Your task to perform on an android device: uninstall "Airtel Thanks" Image 0: 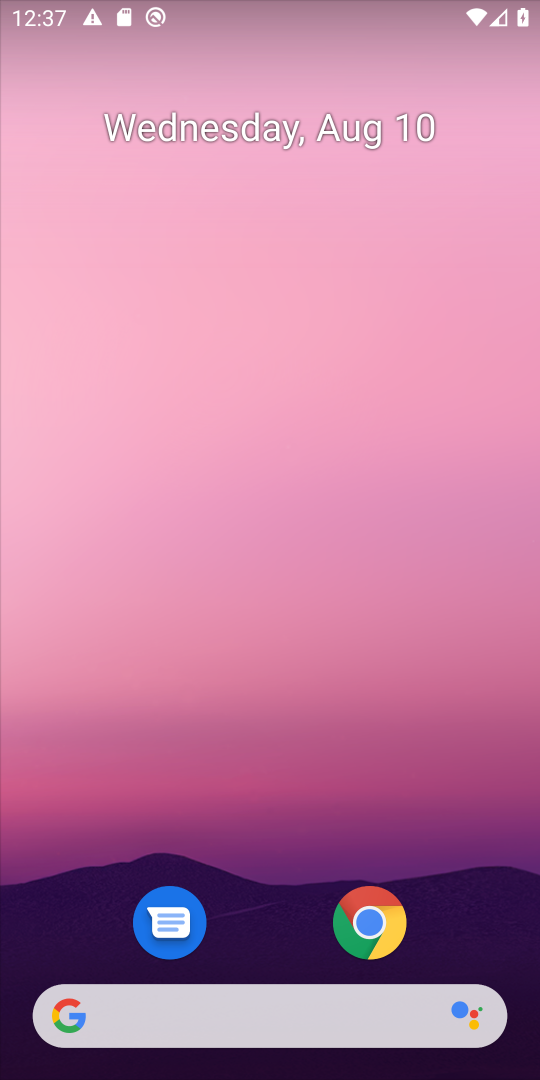
Step 0: click (268, 925)
Your task to perform on an android device: uninstall "Airtel Thanks" Image 1: 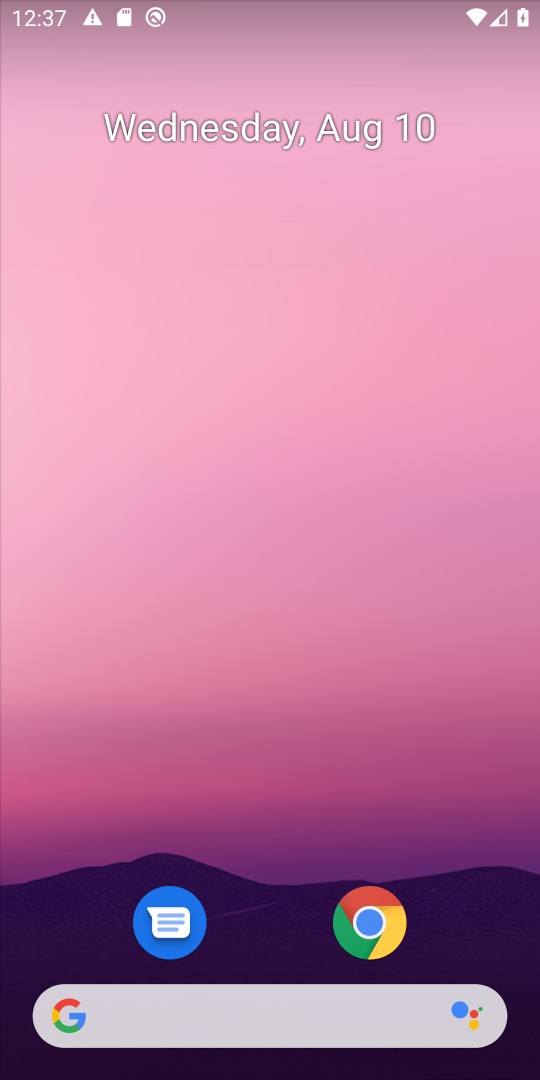
Step 1: drag from (262, 868) to (299, 76)
Your task to perform on an android device: uninstall "Airtel Thanks" Image 2: 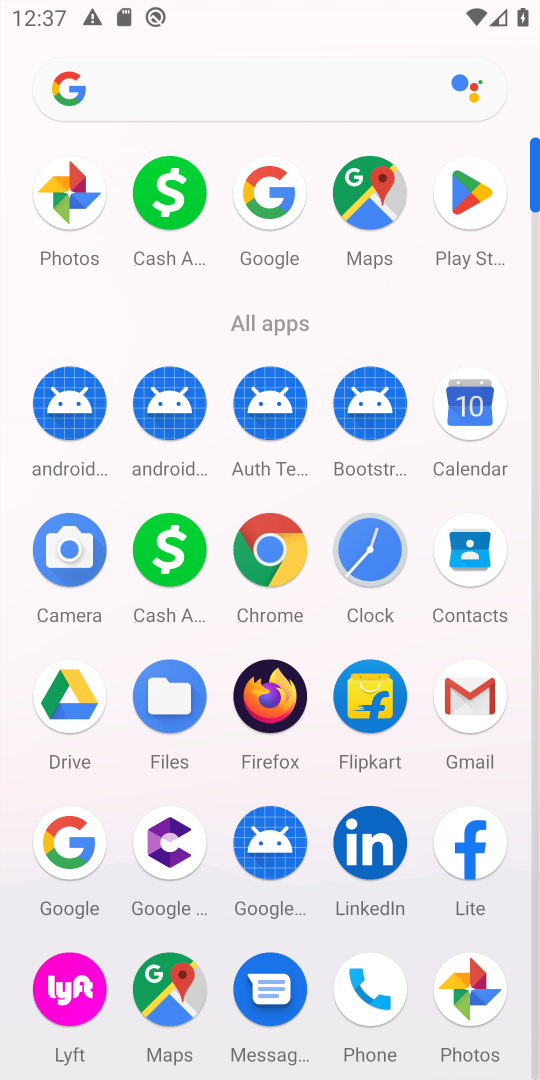
Step 2: click (466, 202)
Your task to perform on an android device: uninstall "Airtel Thanks" Image 3: 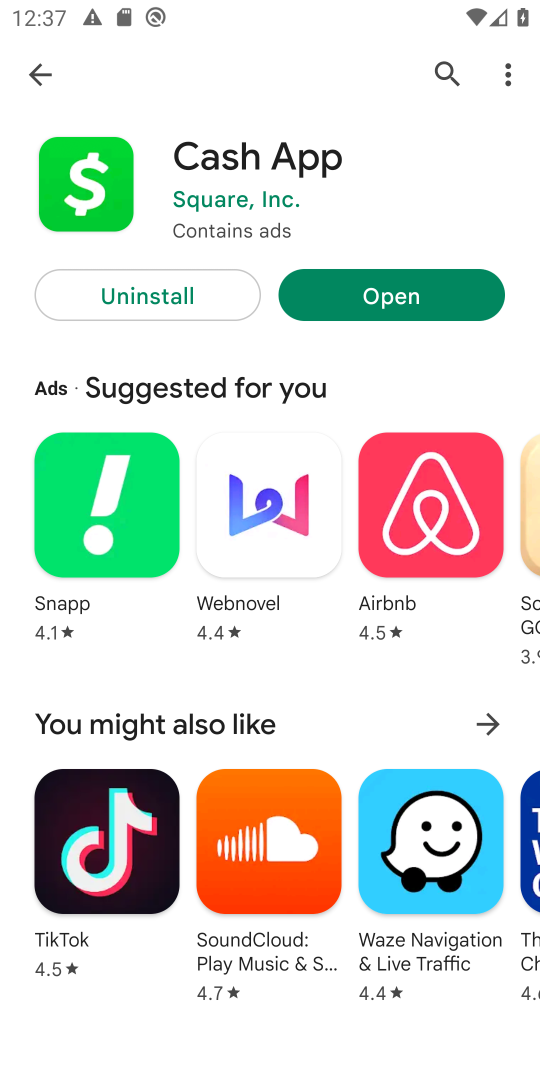
Step 3: click (40, 74)
Your task to perform on an android device: uninstall "Airtel Thanks" Image 4: 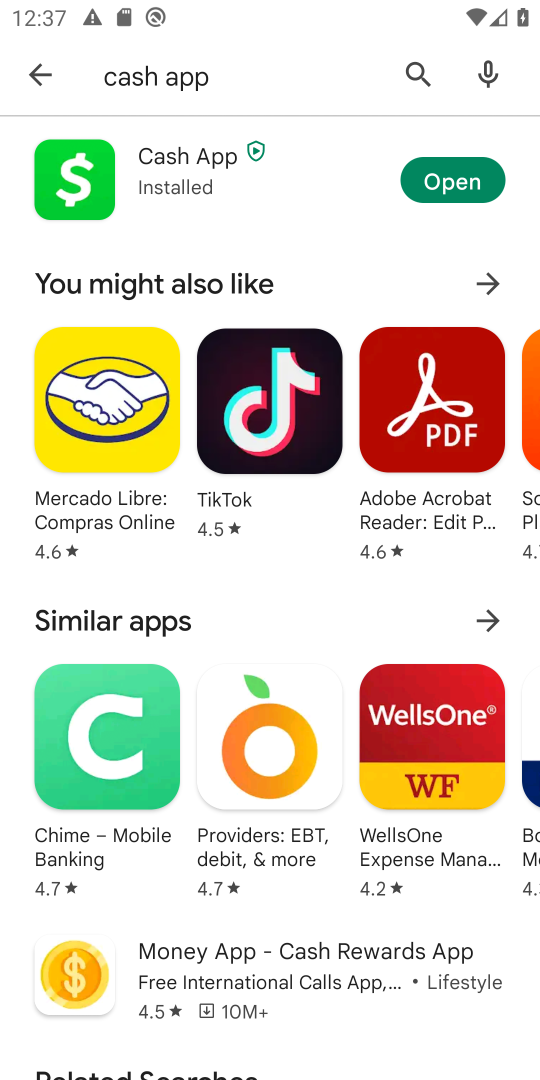
Step 4: click (41, 74)
Your task to perform on an android device: uninstall "Airtel Thanks" Image 5: 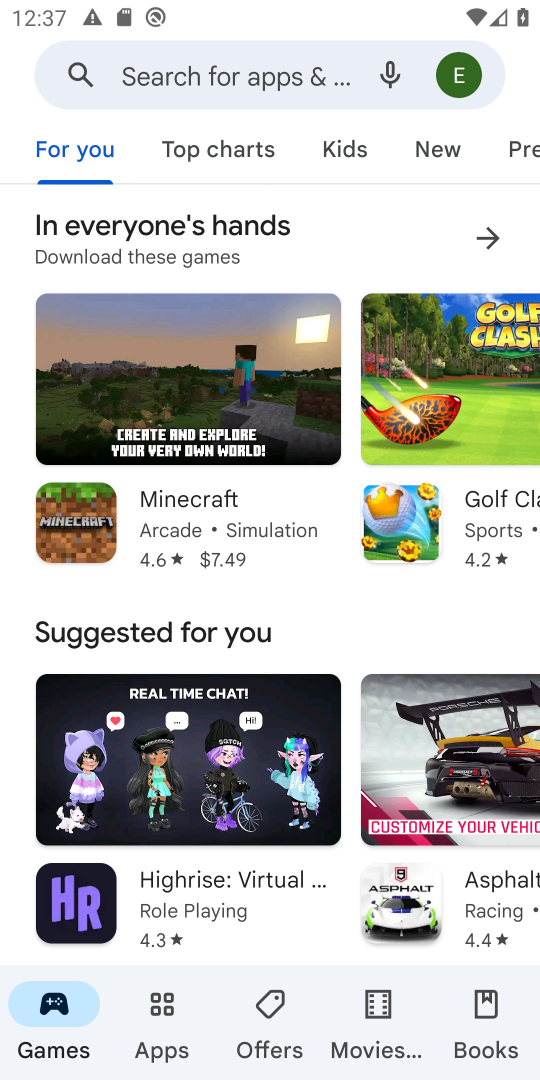
Step 5: click (197, 82)
Your task to perform on an android device: uninstall "Airtel Thanks" Image 6: 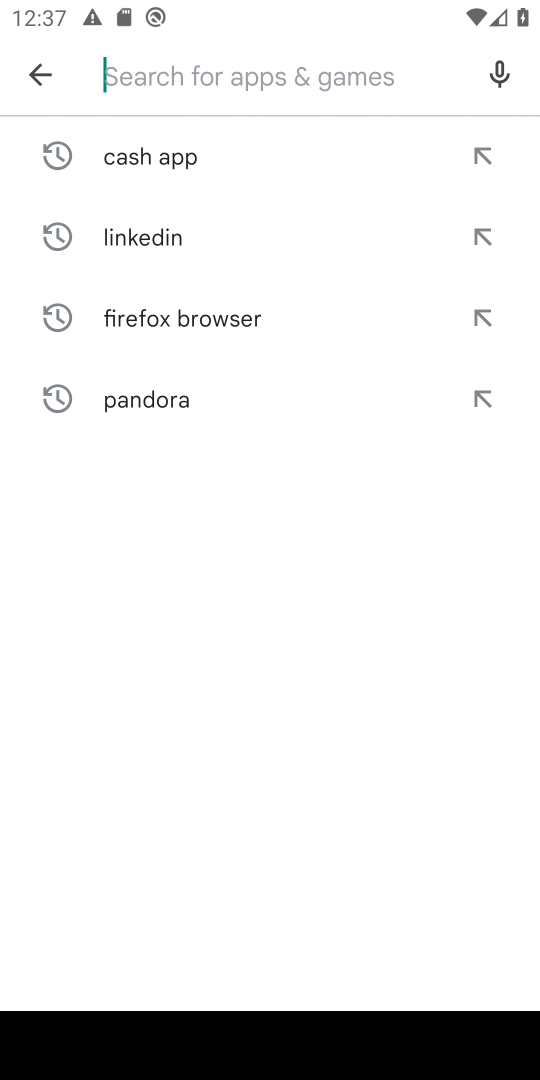
Step 6: type "Airtel Thanks"
Your task to perform on an android device: uninstall "Airtel Thanks" Image 7: 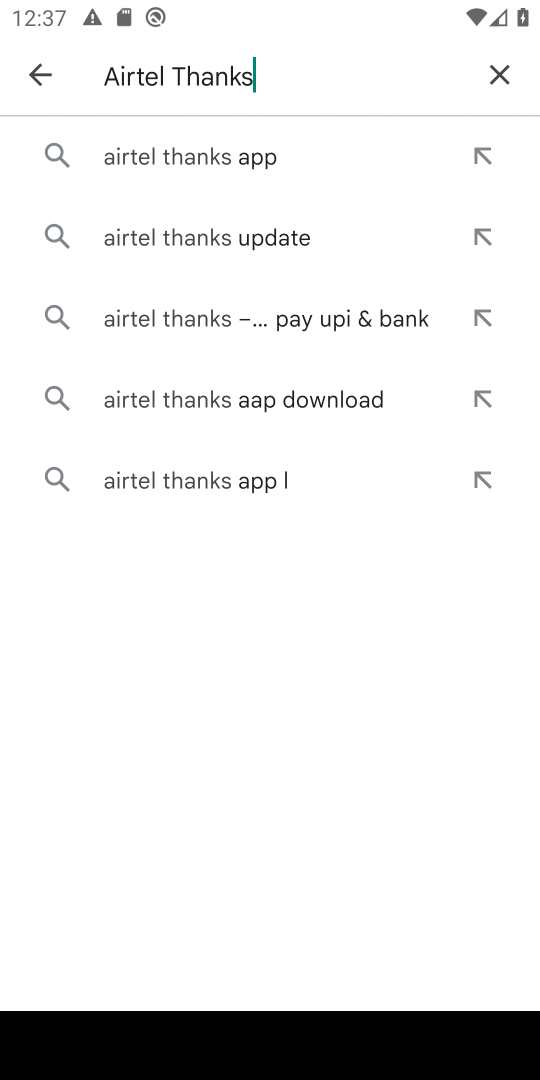
Step 7: click (227, 155)
Your task to perform on an android device: uninstall "Airtel Thanks" Image 8: 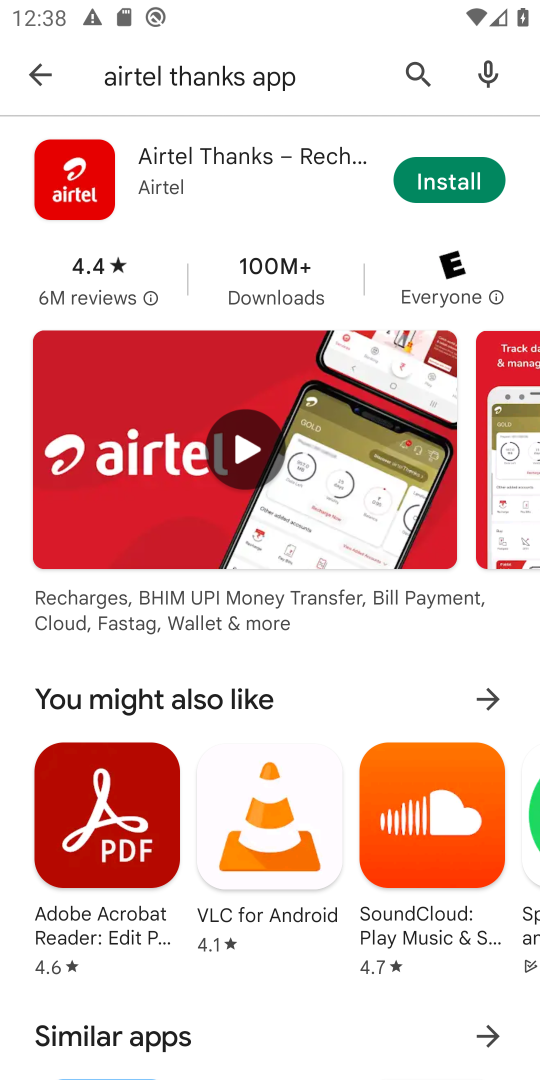
Step 8: task complete